Your task to perform on an android device: Open Android settings Image 0: 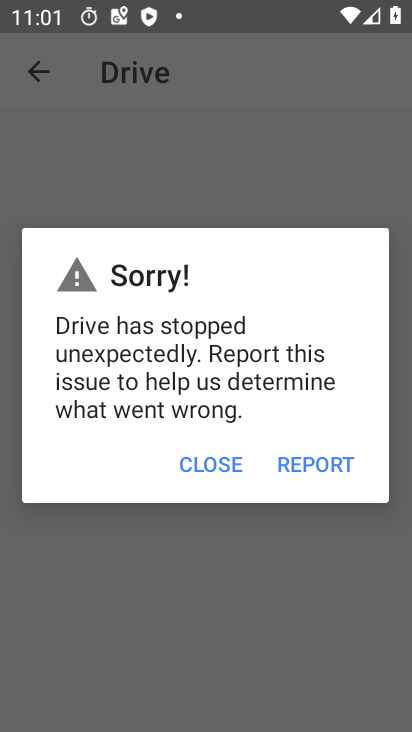
Step 0: press home button
Your task to perform on an android device: Open Android settings Image 1: 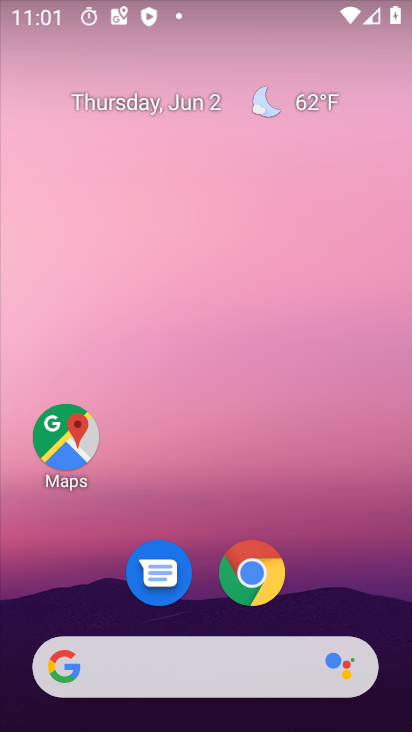
Step 1: drag from (328, 661) to (307, 50)
Your task to perform on an android device: Open Android settings Image 2: 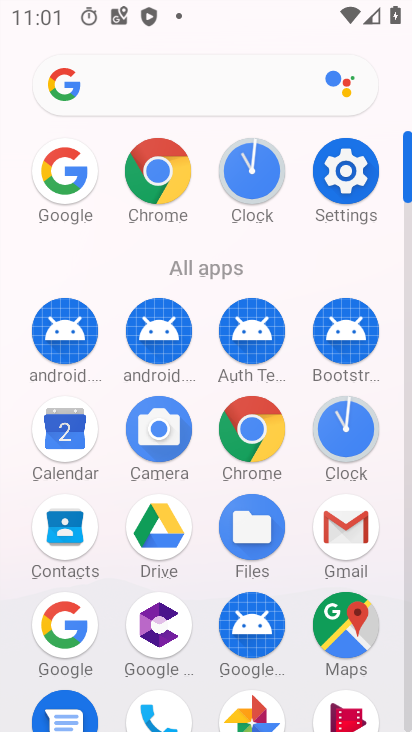
Step 2: click (347, 164)
Your task to perform on an android device: Open Android settings Image 3: 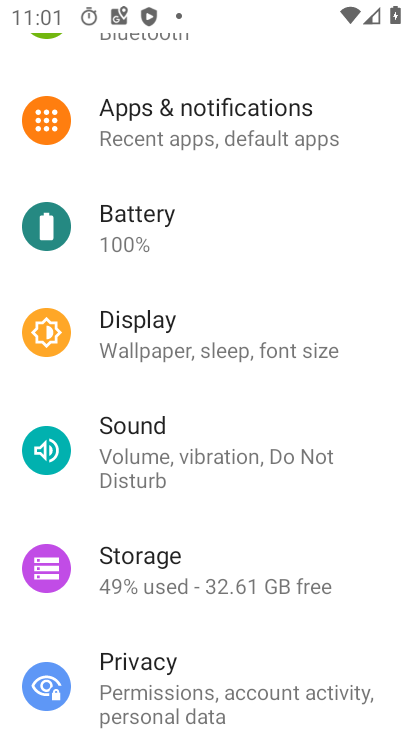
Step 3: drag from (293, 601) to (322, 92)
Your task to perform on an android device: Open Android settings Image 4: 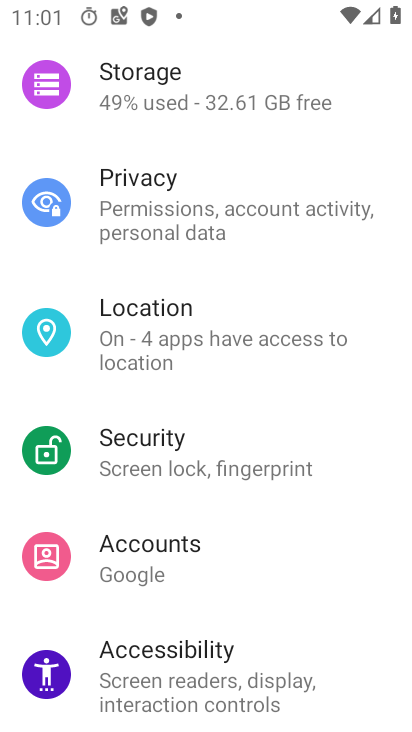
Step 4: click (242, 665)
Your task to perform on an android device: Open Android settings Image 5: 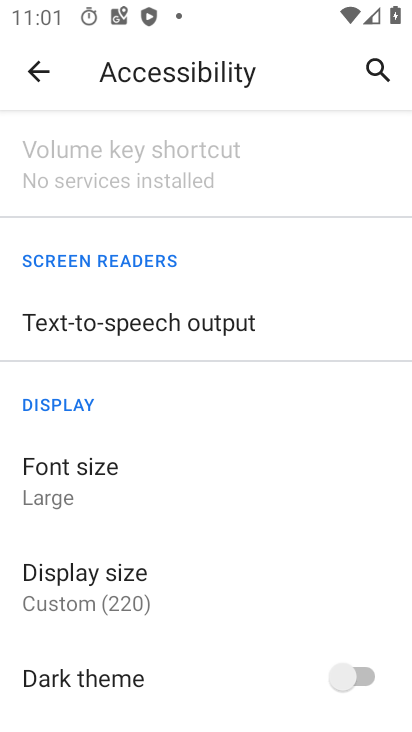
Step 5: press back button
Your task to perform on an android device: Open Android settings Image 6: 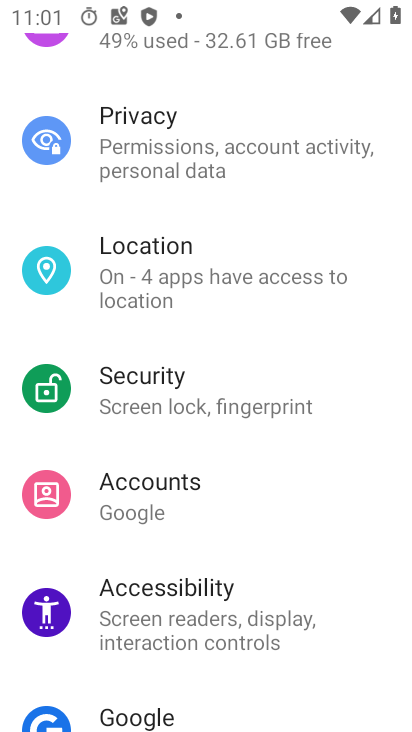
Step 6: drag from (278, 629) to (379, 195)
Your task to perform on an android device: Open Android settings Image 7: 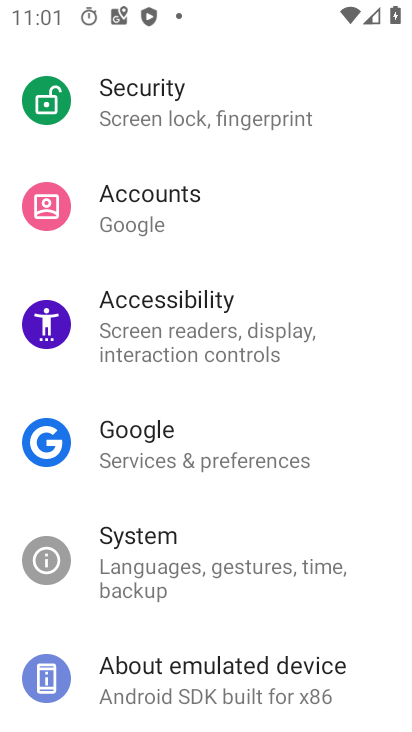
Step 7: click (295, 679)
Your task to perform on an android device: Open Android settings Image 8: 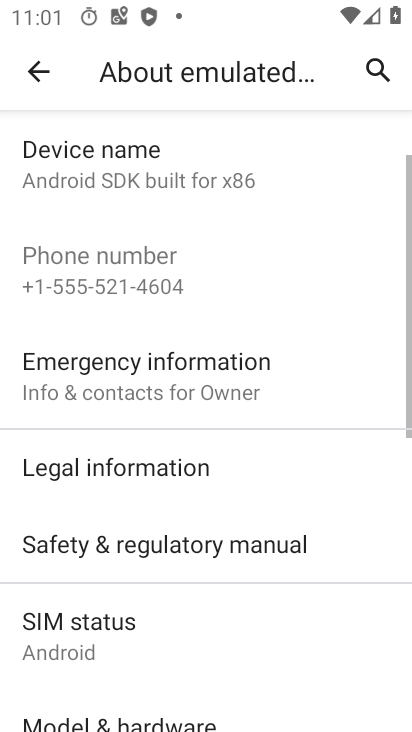
Step 8: drag from (233, 700) to (243, 124)
Your task to perform on an android device: Open Android settings Image 9: 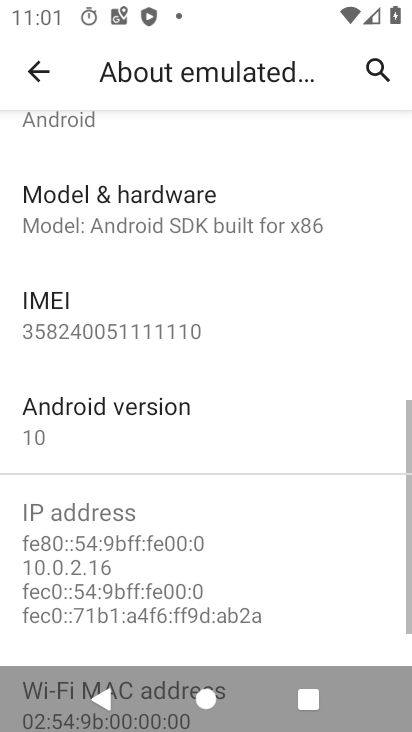
Step 9: click (143, 401)
Your task to perform on an android device: Open Android settings Image 10: 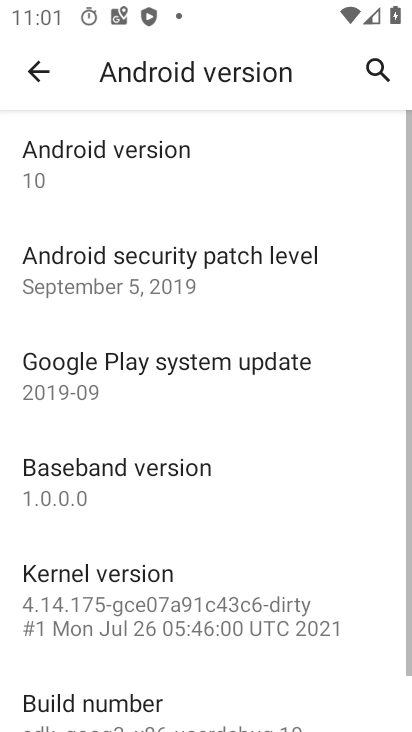
Step 10: task complete